Your task to perform on an android device: see tabs open on other devices in the chrome app Image 0: 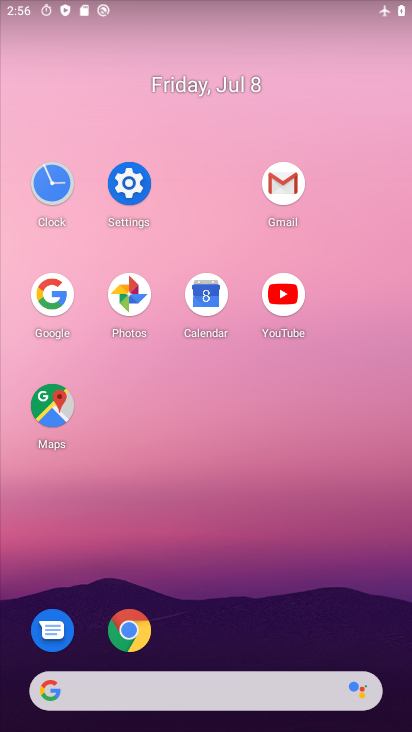
Step 0: click (128, 629)
Your task to perform on an android device: see tabs open on other devices in the chrome app Image 1: 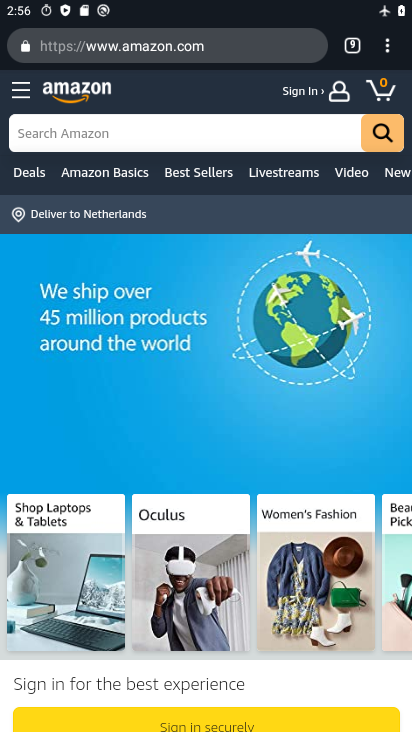
Step 1: click (387, 50)
Your task to perform on an android device: see tabs open on other devices in the chrome app Image 2: 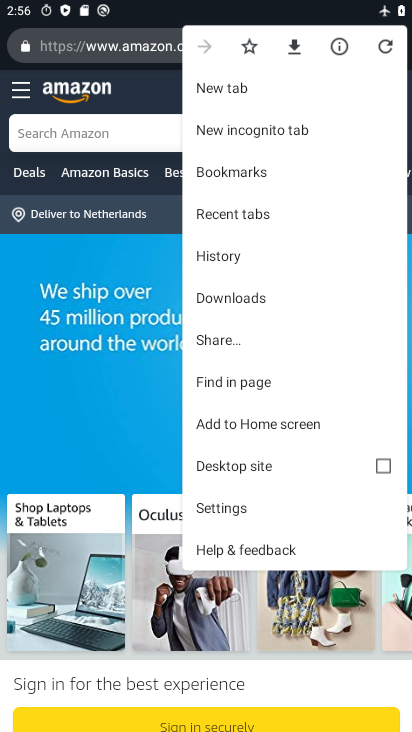
Step 2: click (261, 220)
Your task to perform on an android device: see tabs open on other devices in the chrome app Image 3: 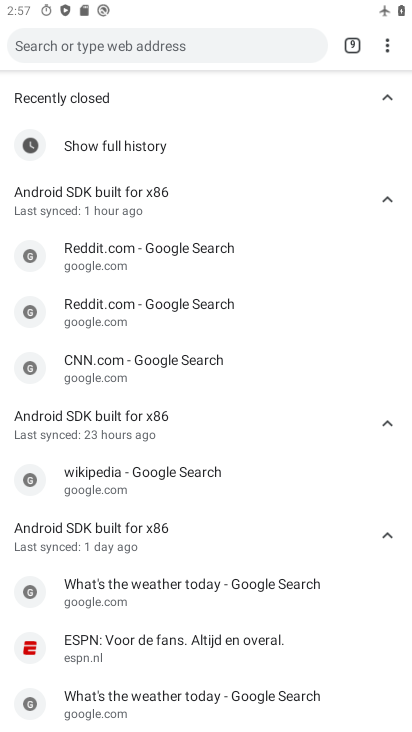
Step 3: task complete